Your task to perform on an android device: turn notification dots on Image 0: 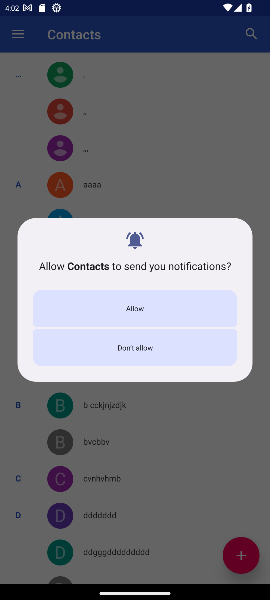
Step 0: press home button
Your task to perform on an android device: turn notification dots on Image 1: 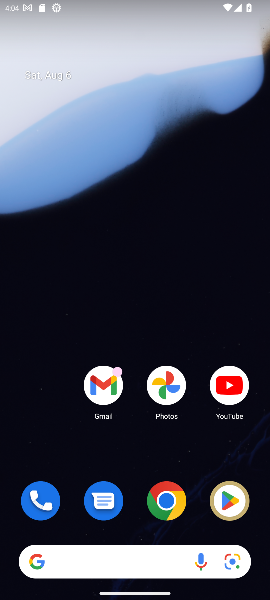
Step 1: drag from (23, 476) to (162, 148)
Your task to perform on an android device: turn notification dots on Image 2: 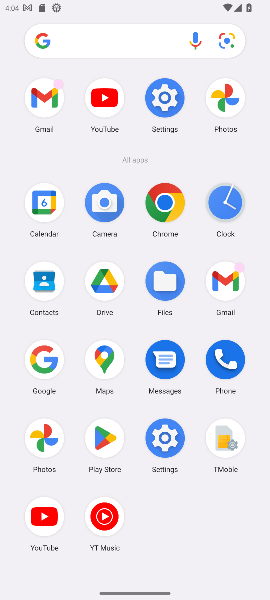
Step 2: click (157, 97)
Your task to perform on an android device: turn notification dots on Image 3: 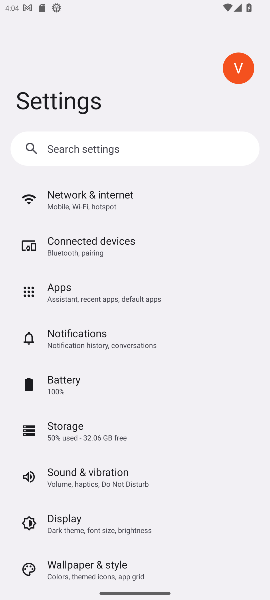
Step 3: click (132, 340)
Your task to perform on an android device: turn notification dots on Image 4: 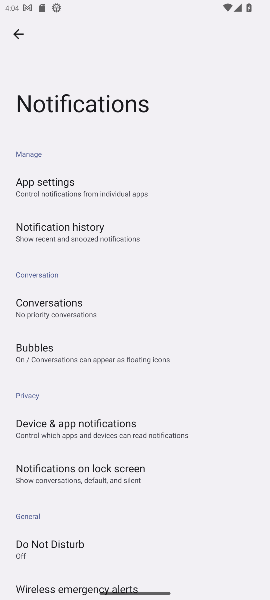
Step 4: task complete